Your task to perform on an android device: change your default location settings in chrome Image 0: 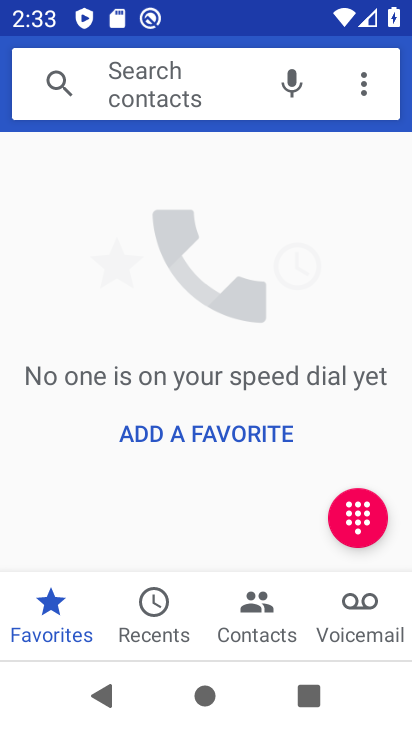
Step 0: press back button
Your task to perform on an android device: change your default location settings in chrome Image 1: 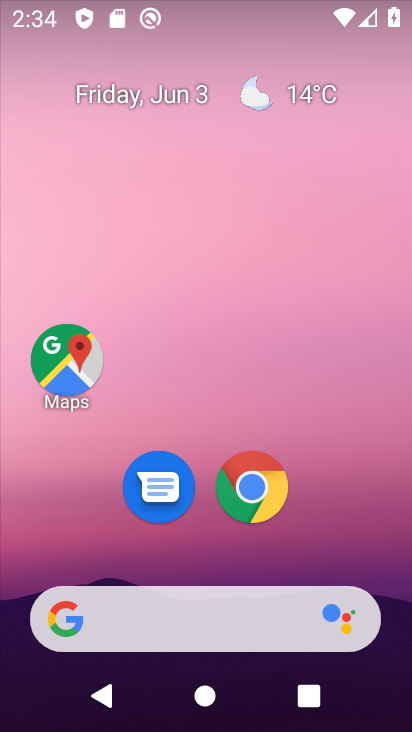
Step 1: click (227, 489)
Your task to perform on an android device: change your default location settings in chrome Image 2: 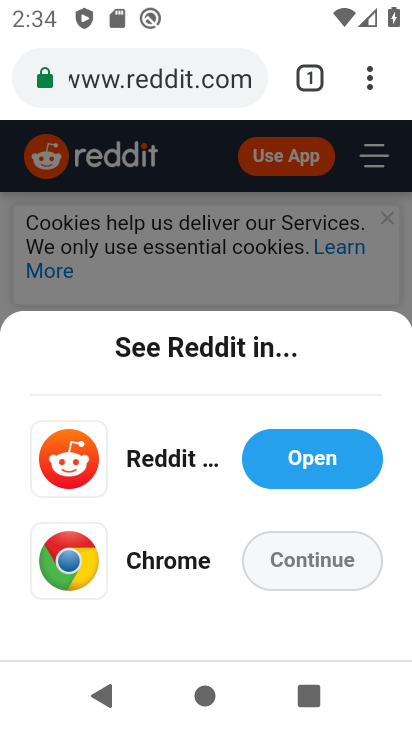
Step 2: drag from (372, 72) to (103, 547)
Your task to perform on an android device: change your default location settings in chrome Image 3: 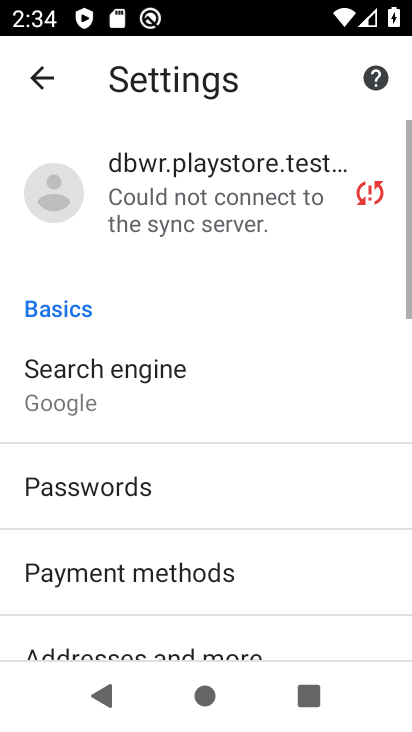
Step 3: drag from (111, 617) to (235, 102)
Your task to perform on an android device: change your default location settings in chrome Image 4: 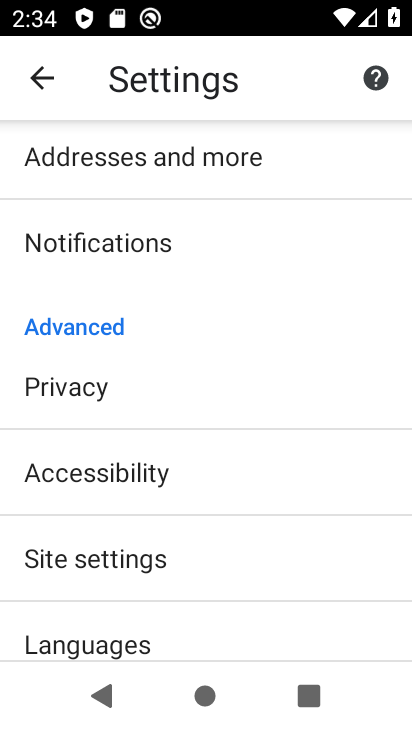
Step 4: drag from (173, 594) to (227, 231)
Your task to perform on an android device: change your default location settings in chrome Image 5: 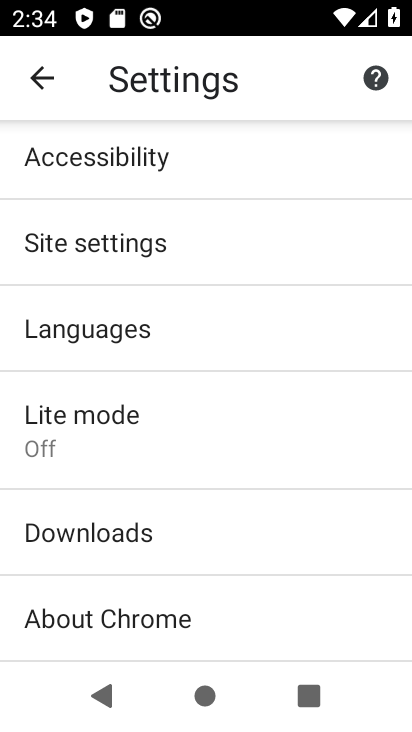
Step 5: click (146, 249)
Your task to perform on an android device: change your default location settings in chrome Image 6: 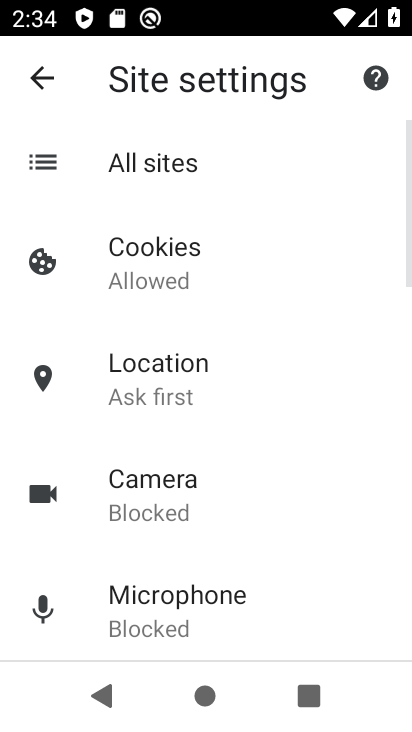
Step 6: click (170, 397)
Your task to perform on an android device: change your default location settings in chrome Image 7: 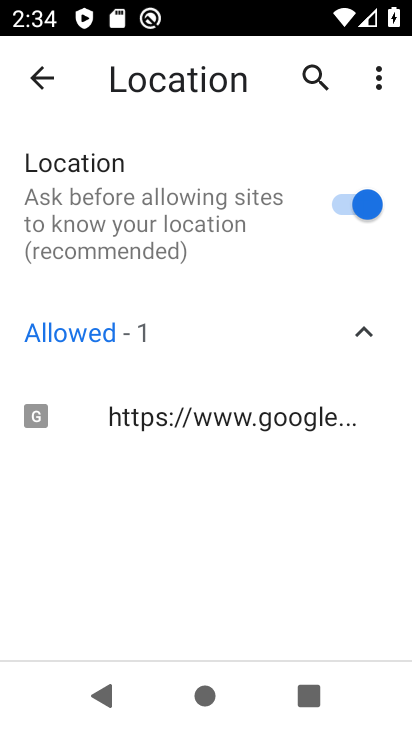
Step 7: click (355, 207)
Your task to perform on an android device: change your default location settings in chrome Image 8: 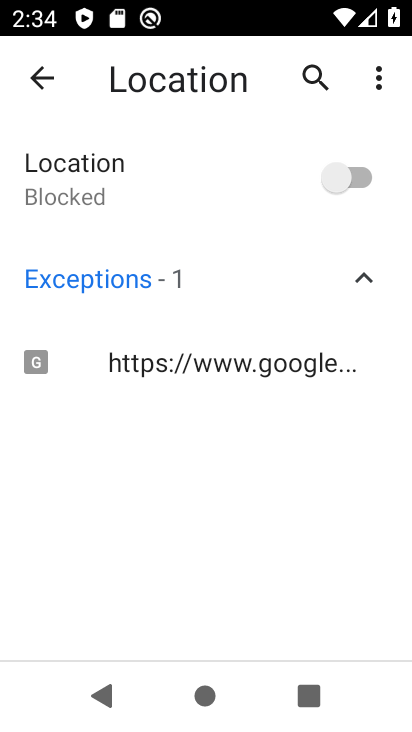
Step 8: task complete